Your task to perform on an android device: Go to location settings Image 0: 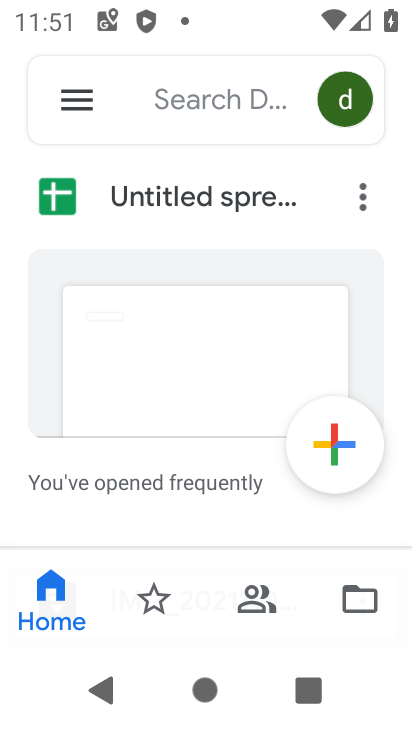
Step 0: press home button
Your task to perform on an android device: Go to location settings Image 1: 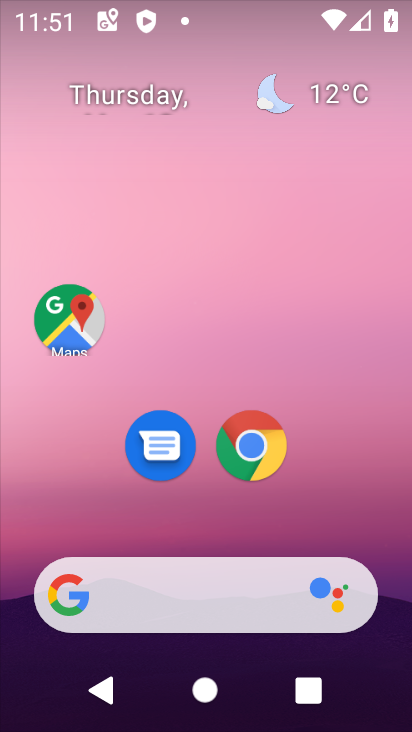
Step 1: drag from (170, 594) to (111, 110)
Your task to perform on an android device: Go to location settings Image 2: 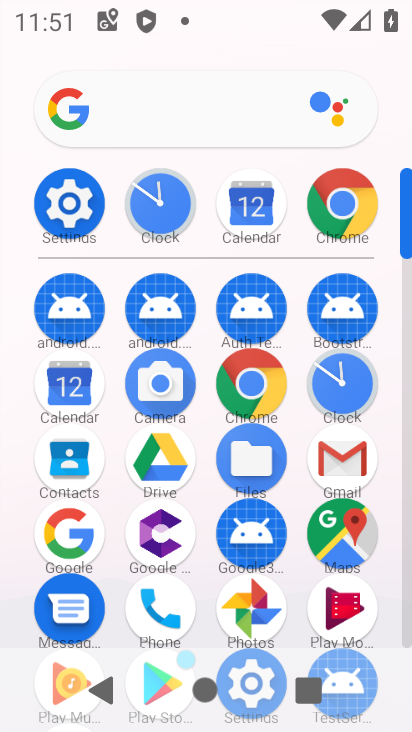
Step 2: click (54, 208)
Your task to perform on an android device: Go to location settings Image 3: 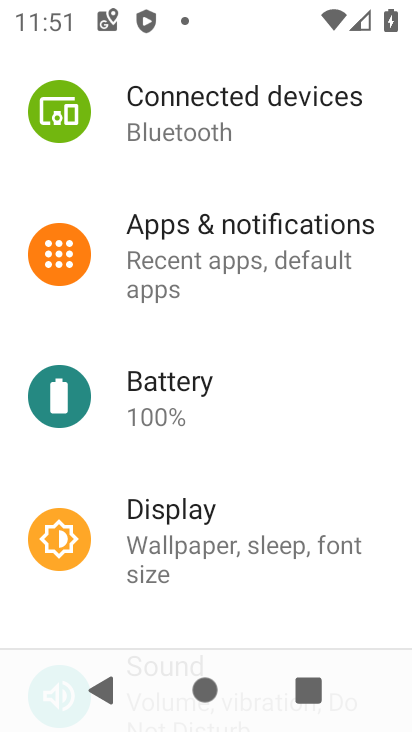
Step 3: drag from (189, 530) to (165, 172)
Your task to perform on an android device: Go to location settings Image 4: 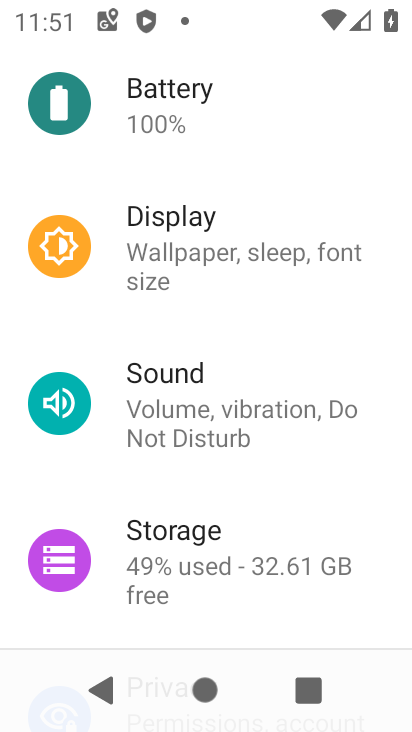
Step 4: drag from (212, 580) to (175, 139)
Your task to perform on an android device: Go to location settings Image 5: 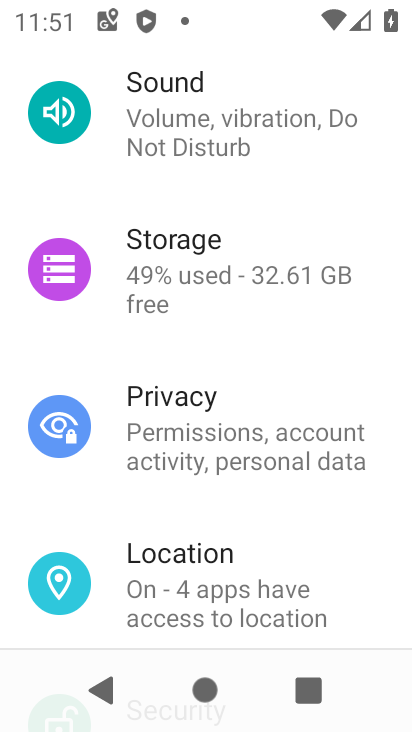
Step 5: click (180, 579)
Your task to perform on an android device: Go to location settings Image 6: 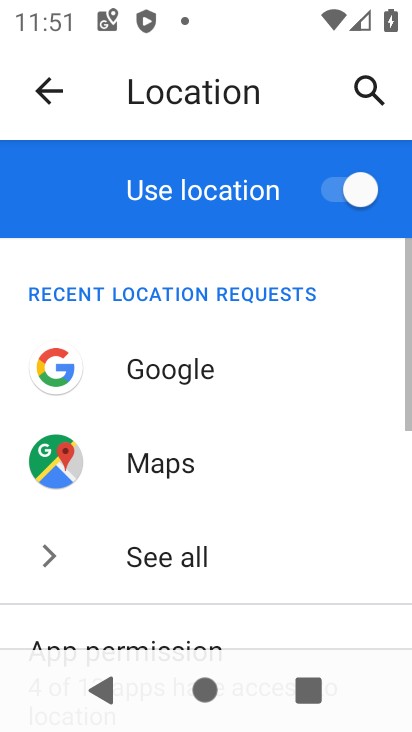
Step 6: task complete